Your task to perform on an android device: turn on bluetooth scan Image 0: 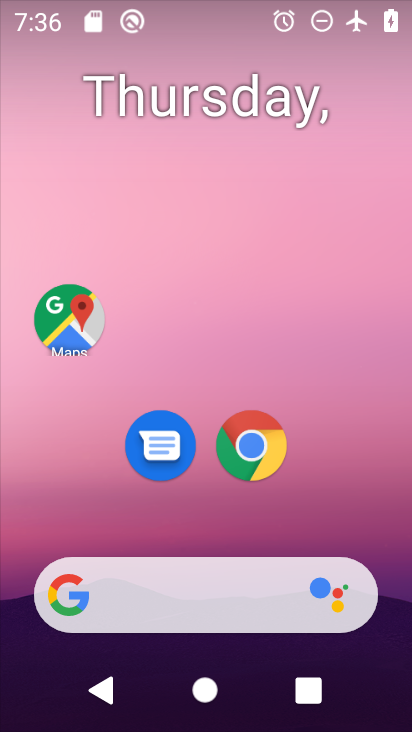
Step 0: drag from (313, 493) to (239, 47)
Your task to perform on an android device: turn on bluetooth scan Image 1: 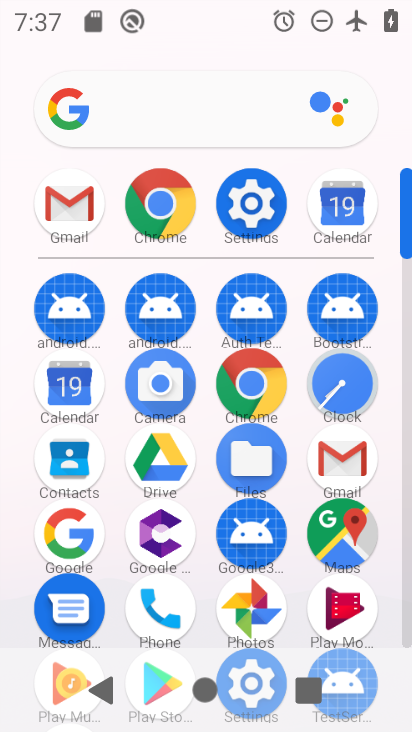
Step 1: click (252, 186)
Your task to perform on an android device: turn on bluetooth scan Image 2: 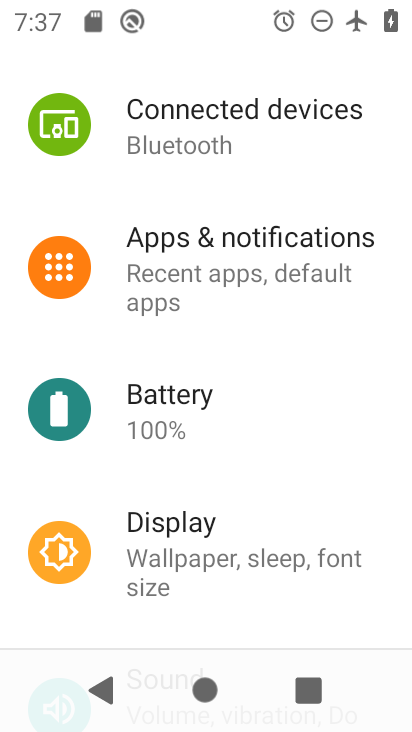
Step 2: drag from (253, 459) to (210, 144)
Your task to perform on an android device: turn on bluetooth scan Image 3: 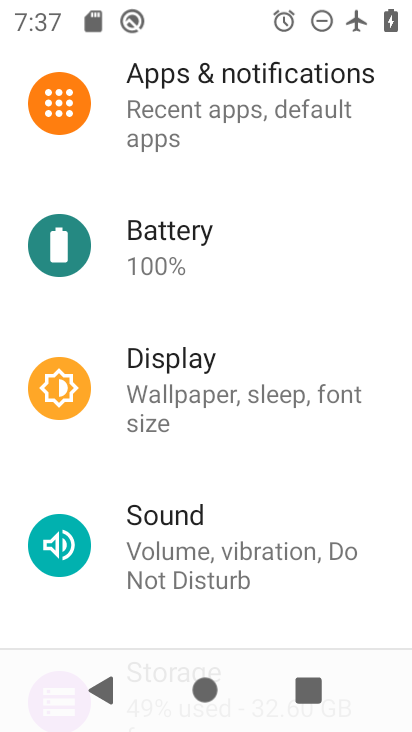
Step 3: drag from (214, 475) to (178, 179)
Your task to perform on an android device: turn on bluetooth scan Image 4: 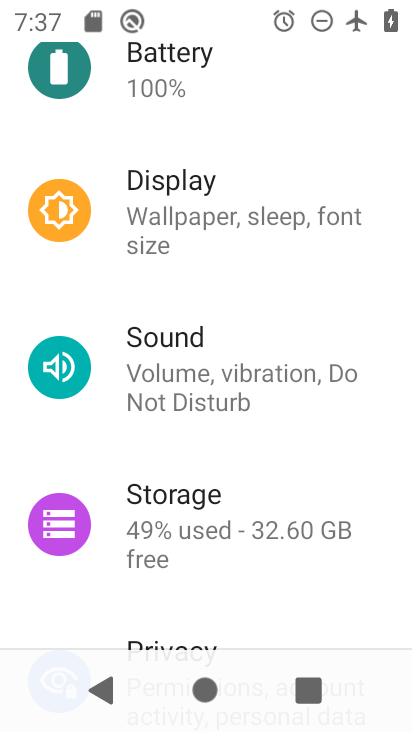
Step 4: drag from (216, 300) to (199, 160)
Your task to perform on an android device: turn on bluetooth scan Image 5: 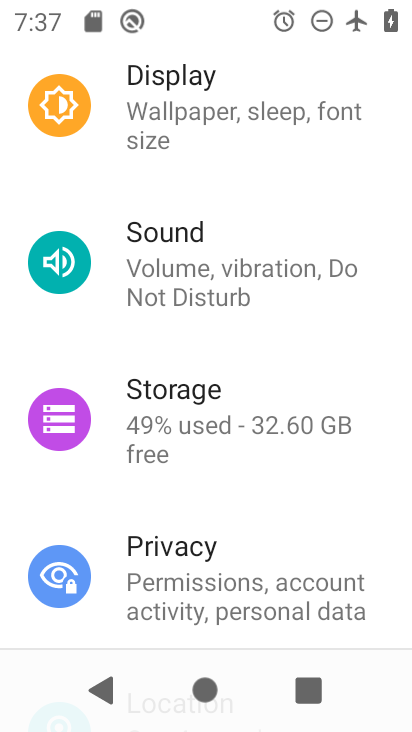
Step 5: drag from (233, 478) to (187, 195)
Your task to perform on an android device: turn on bluetooth scan Image 6: 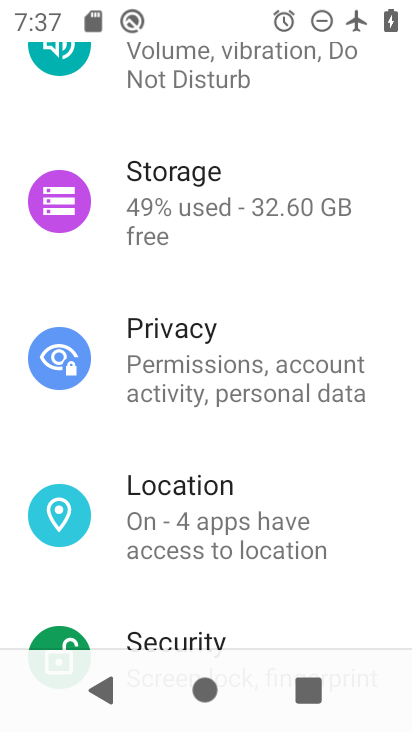
Step 6: click (171, 487)
Your task to perform on an android device: turn on bluetooth scan Image 7: 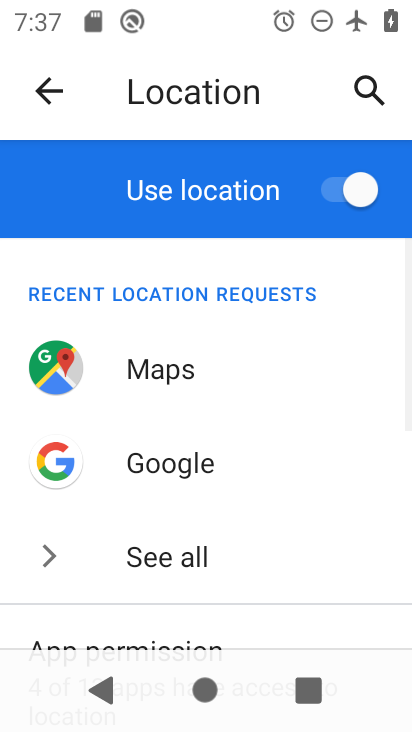
Step 7: drag from (271, 509) to (216, 231)
Your task to perform on an android device: turn on bluetooth scan Image 8: 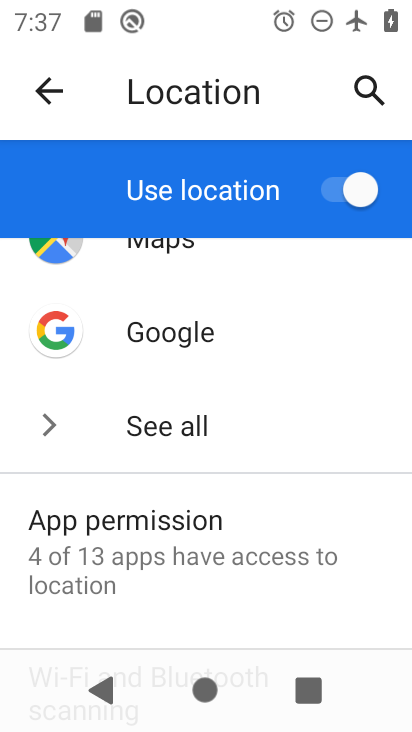
Step 8: drag from (235, 485) to (155, 227)
Your task to perform on an android device: turn on bluetooth scan Image 9: 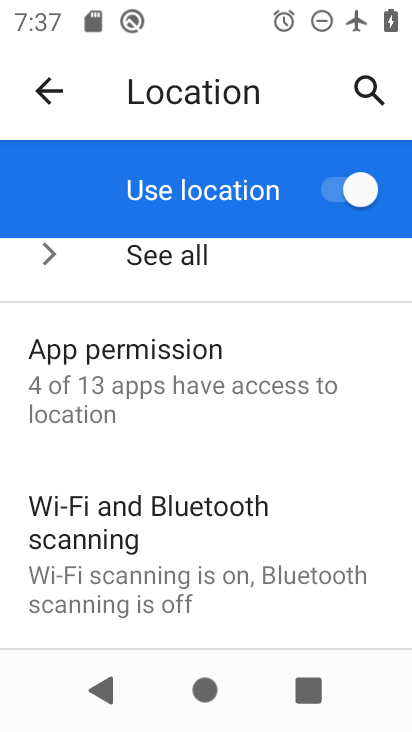
Step 9: click (148, 501)
Your task to perform on an android device: turn on bluetooth scan Image 10: 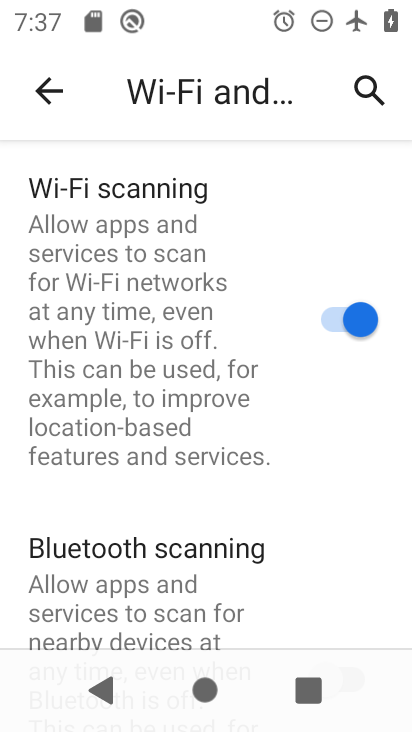
Step 10: drag from (348, 545) to (260, 303)
Your task to perform on an android device: turn on bluetooth scan Image 11: 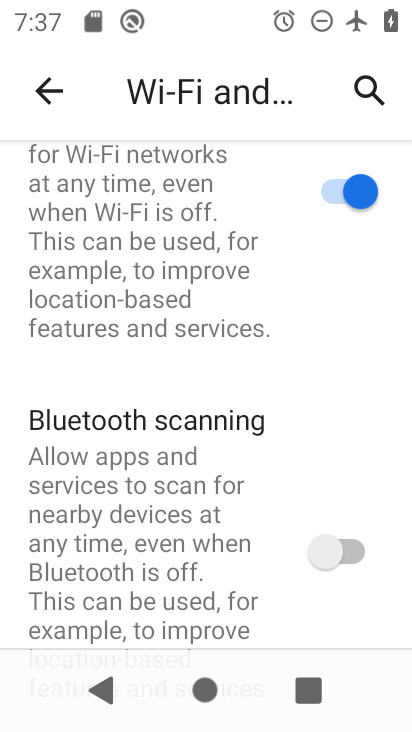
Step 11: click (326, 544)
Your task to perform on an android device: turn on bluetooth scan Image 12: 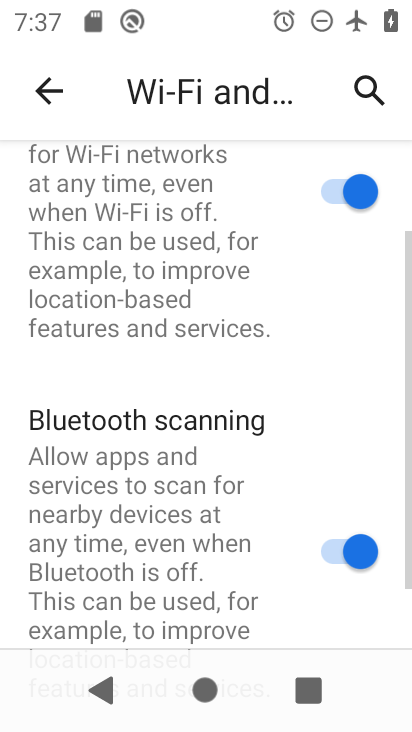
Step 12: task complete